Your task to perform on an android device: toggle wifi Image 0: 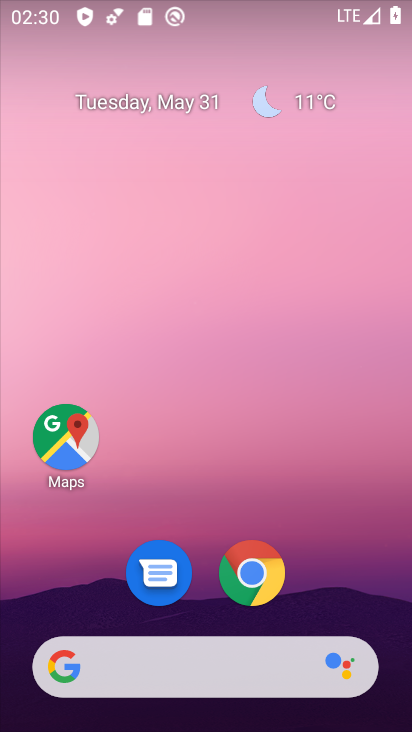
Step 0: drag from (393, 626) to (319, 220)
Your task to perform on an android device: toggle wifi Image 1: 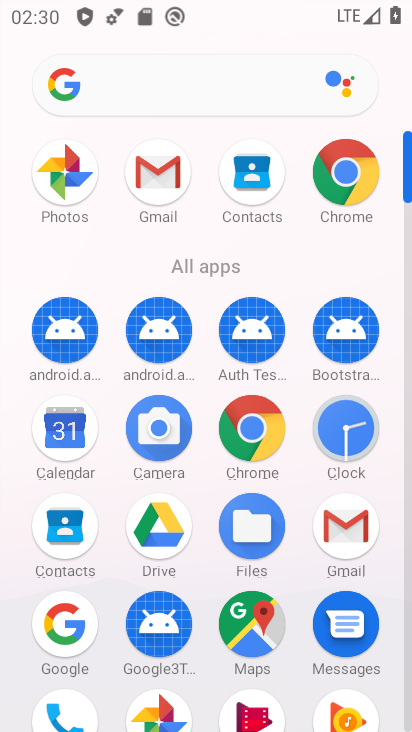
Step 1: click (408, 695)
Your task to perform on an android device: toggle wifi Image 2: 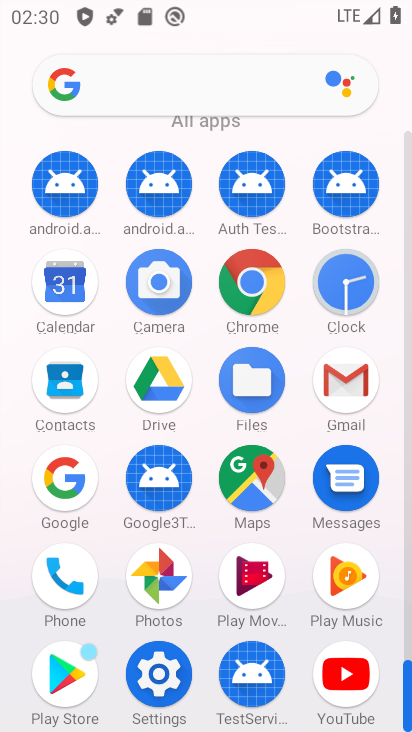
Step 2: click (147, 665)
Your task to perform on an android device: toggle wifi Image 3: 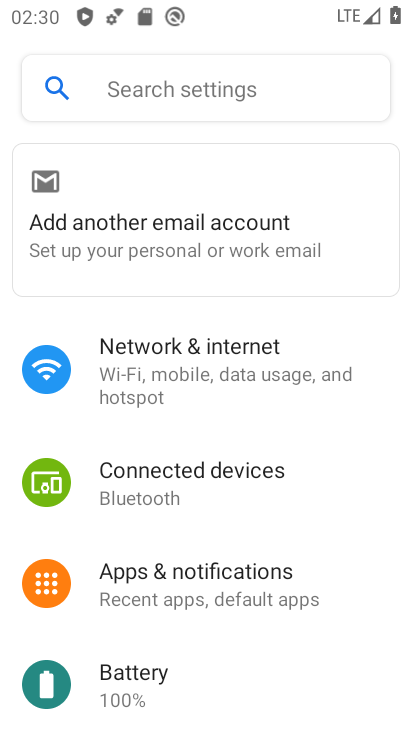
Step 3: click (260, 346)
Your task to perform on an android device: toggle wifi Image 4: 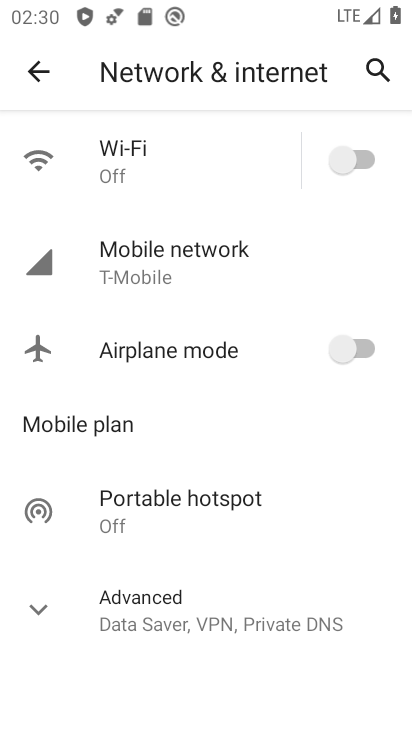
Step 4: click (366, 166)
Your task to perform on an android device: toggle wifi Image 5: 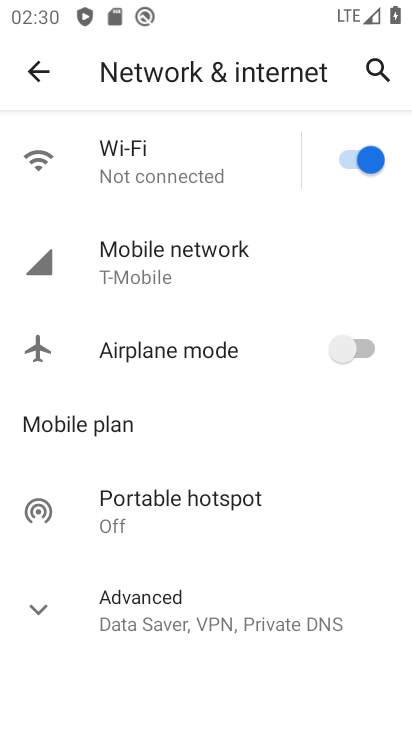
Step 5: task complete